Your task to perform on an android device: remove spam from my inbox in the gmail app Image 0: 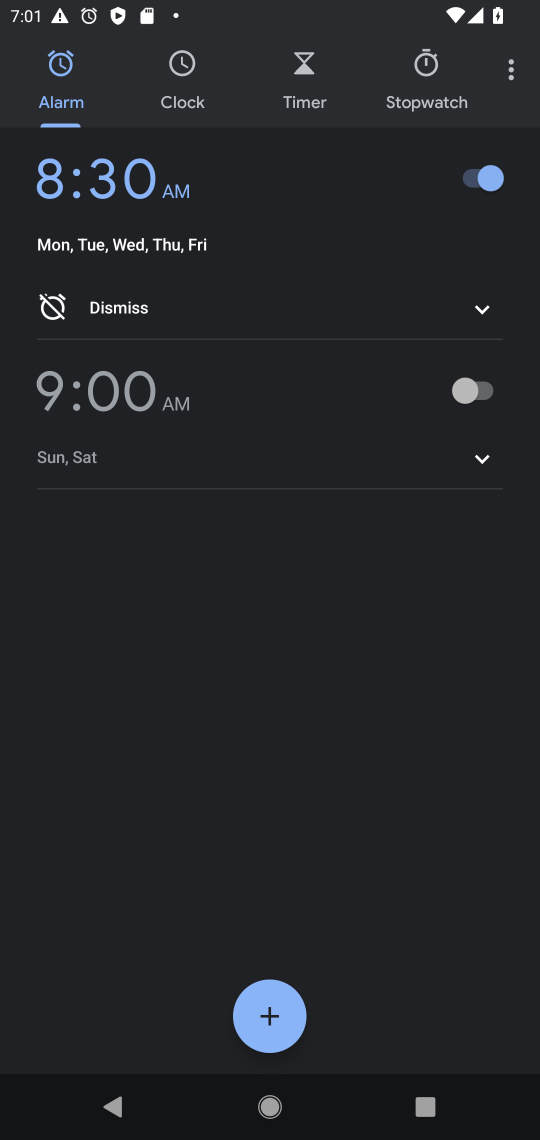
Step 0: press home button
Your task to perform on an android device: remove spam from my inbox in the gmail app Image 1: 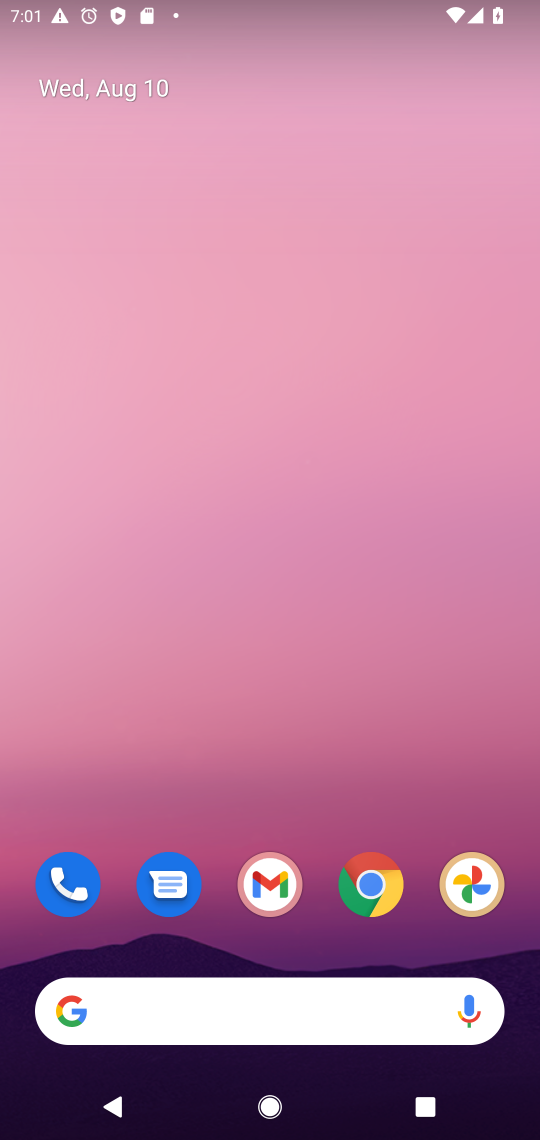
Step 1: click (264, 913)
Your task to perform on an android device: remove spam from my inbox in the gmail app Image 2: 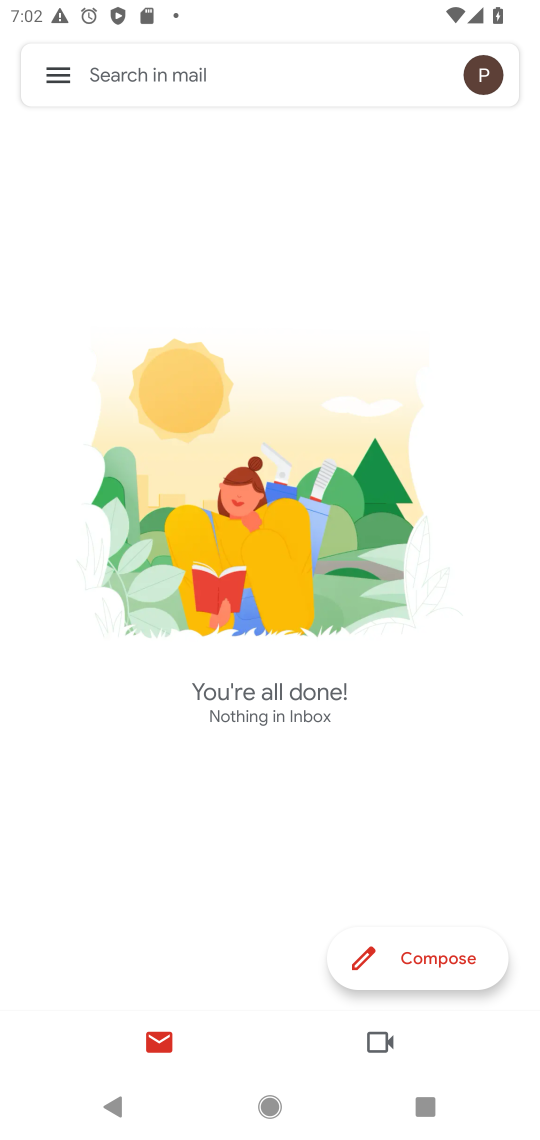
Step 2: click (61, 72)
Your task to perform on an android device: remove spam from my inbox in the gmail app Image 3: 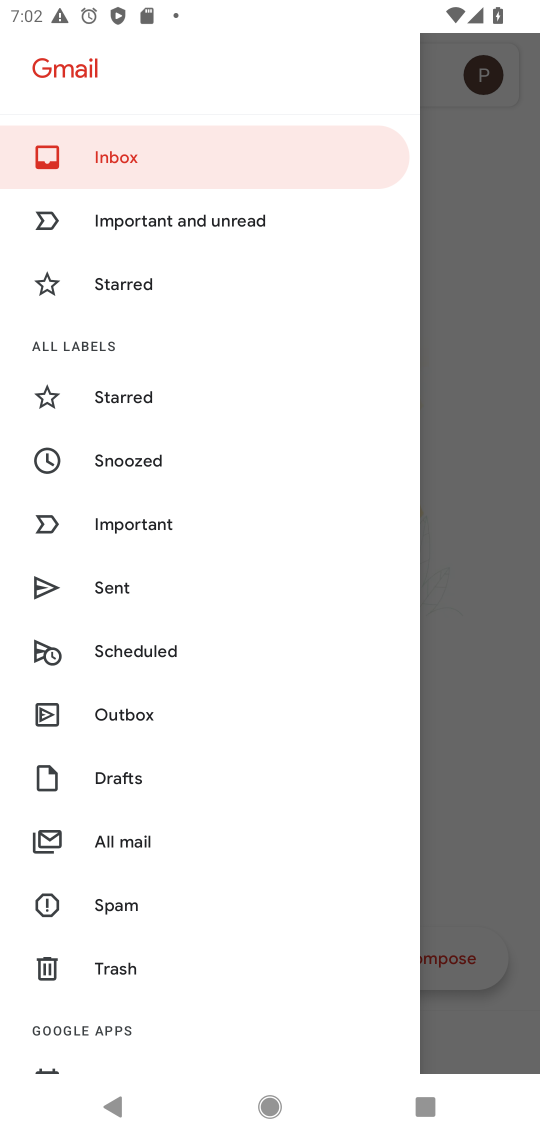
Step 3: click (123, 912)
Your task to perform on an android device: remove spam from my inbox in the gmail app Image 4: 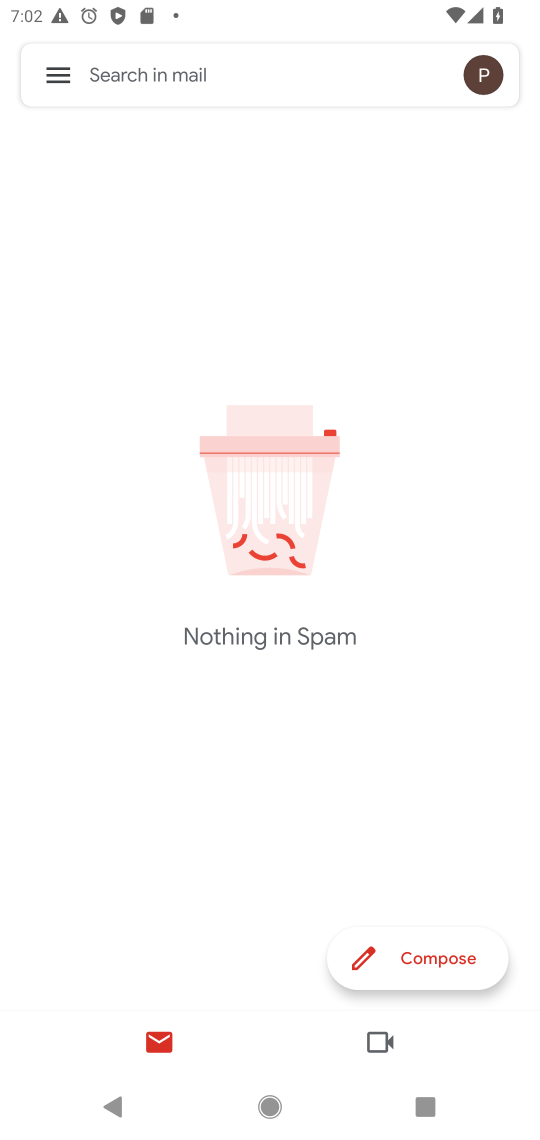
Step 4: task complete